Your task to perform on an android device: install app "Clock" Image 0: 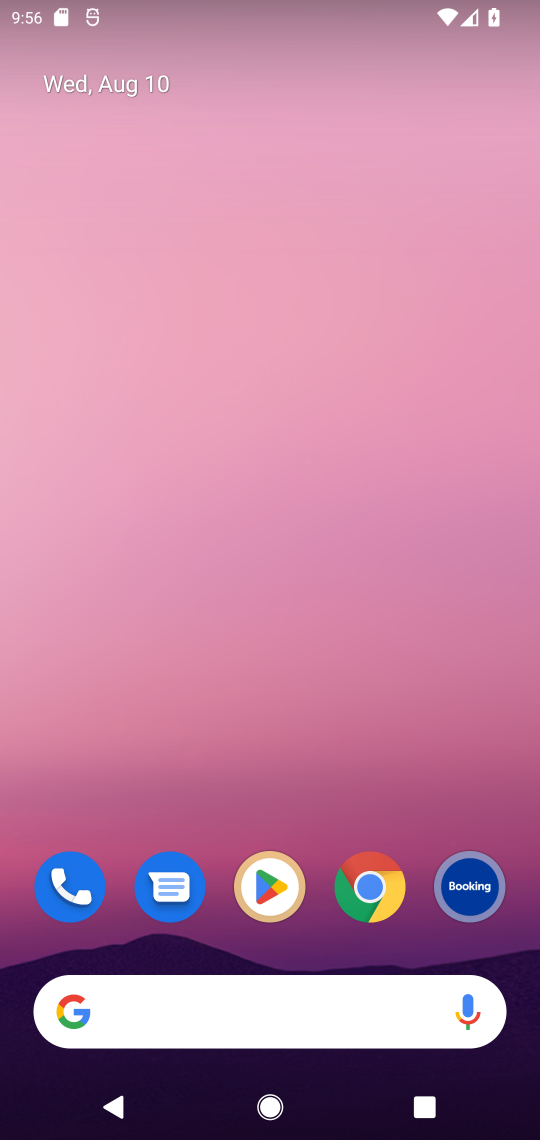
Step 0: click (255, 910)
Your task to perform on an android device: install app "Clock" Image 1: 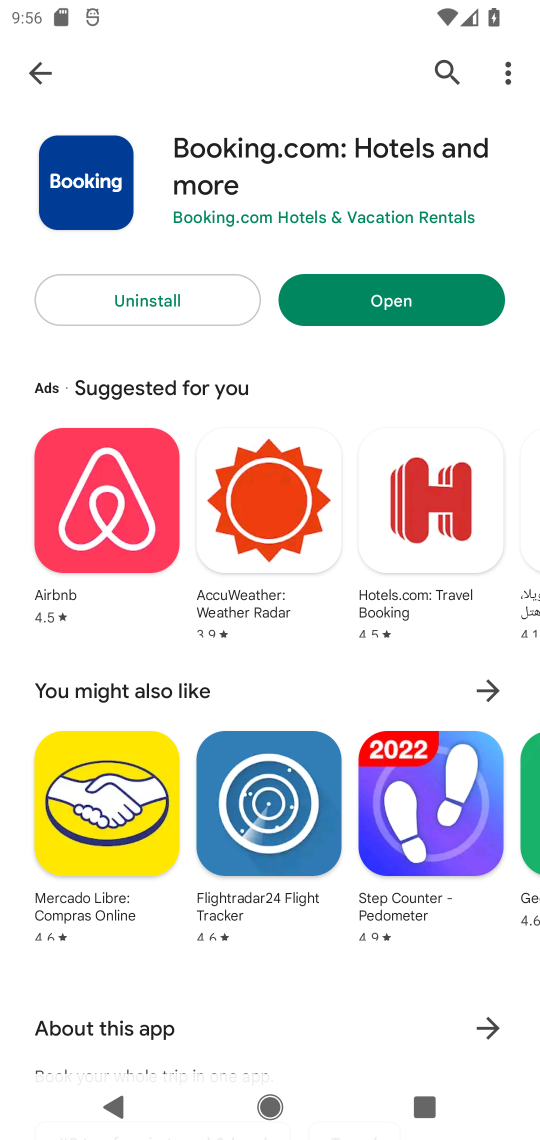
Step 1: click (432, 84)
Your task to perform on an android device: install app "Clock" Image 2: 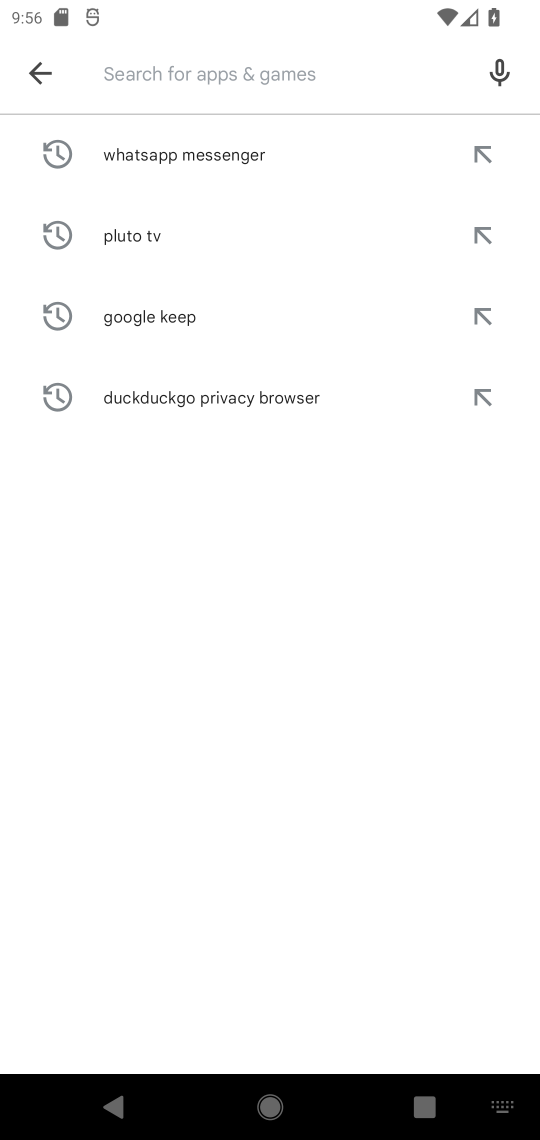
Step 2: type "clock"
Your task to perform on an android device: install app "Clock" Image 3: 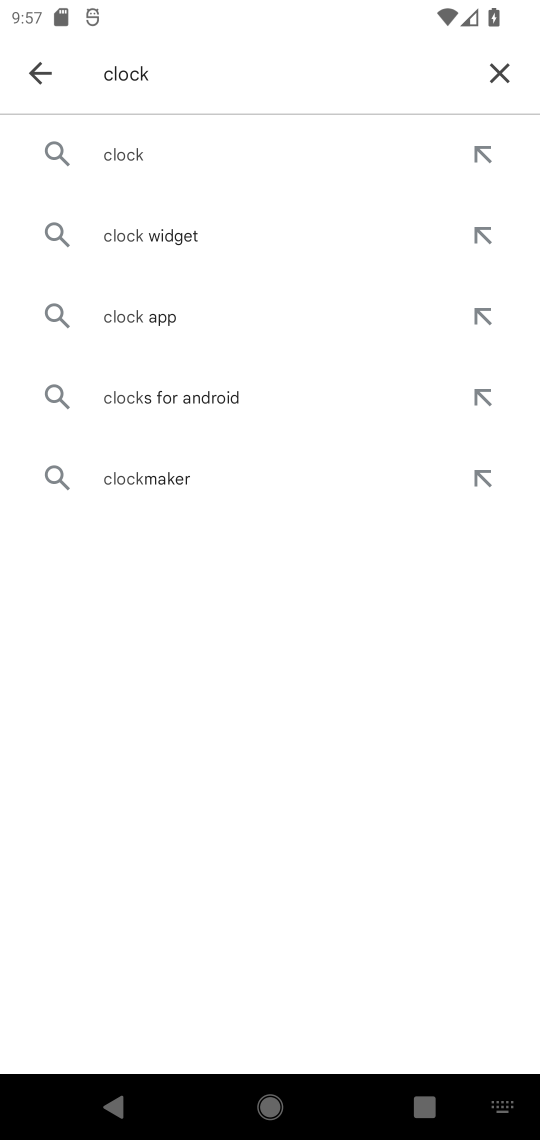
Step 3: click (131, 159)
Your task to perform on an android device: install app "Clock" Image 4: 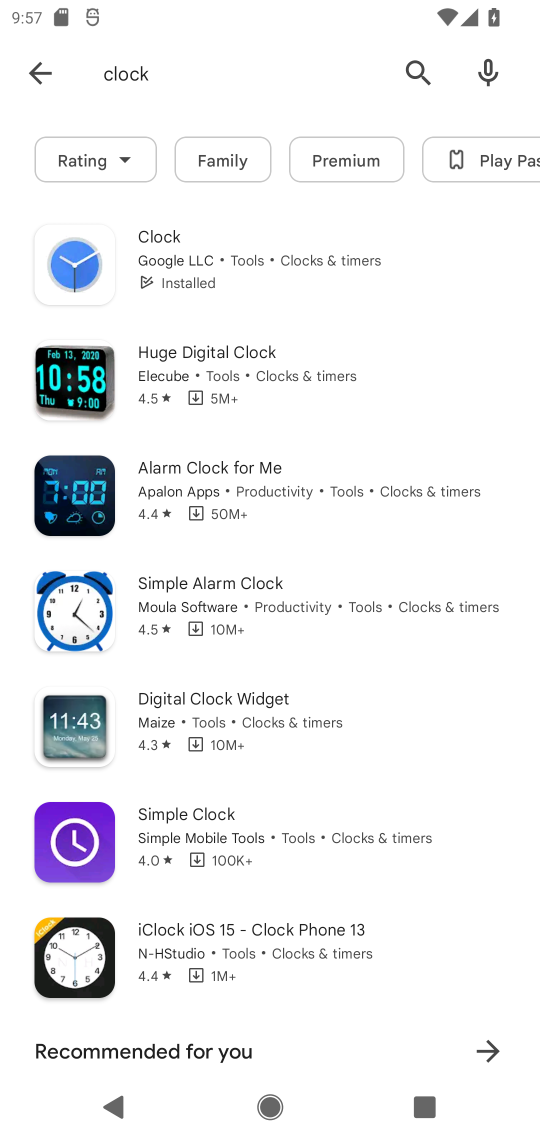
Step 4: click (266, 206)
Your task to perform on an android device: install app "Clock" Image 5: 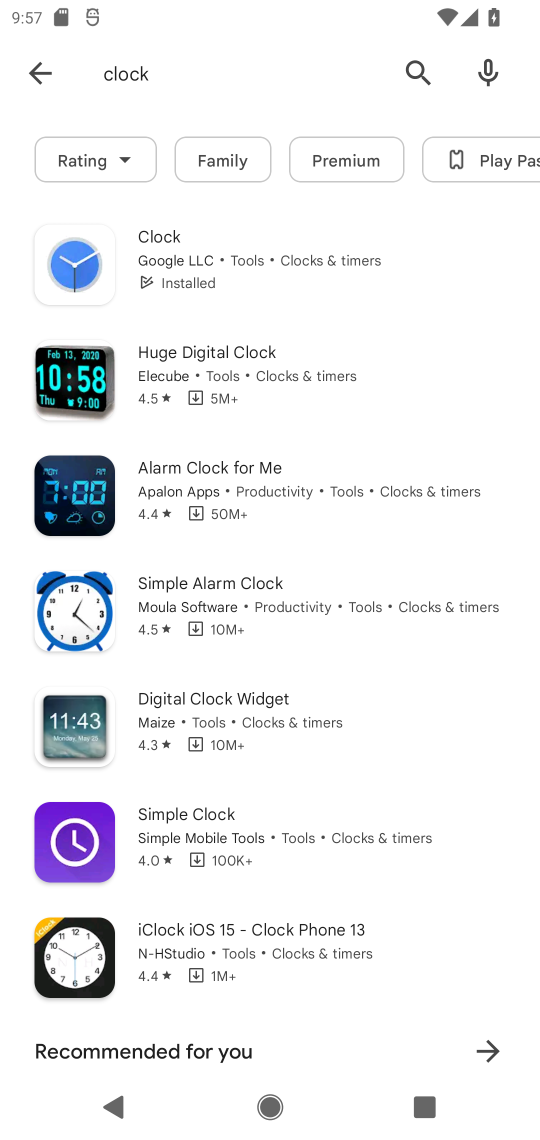
Step 5: click (229, 238)
Your task to perform on an android device: install app "Clock" Image 6: 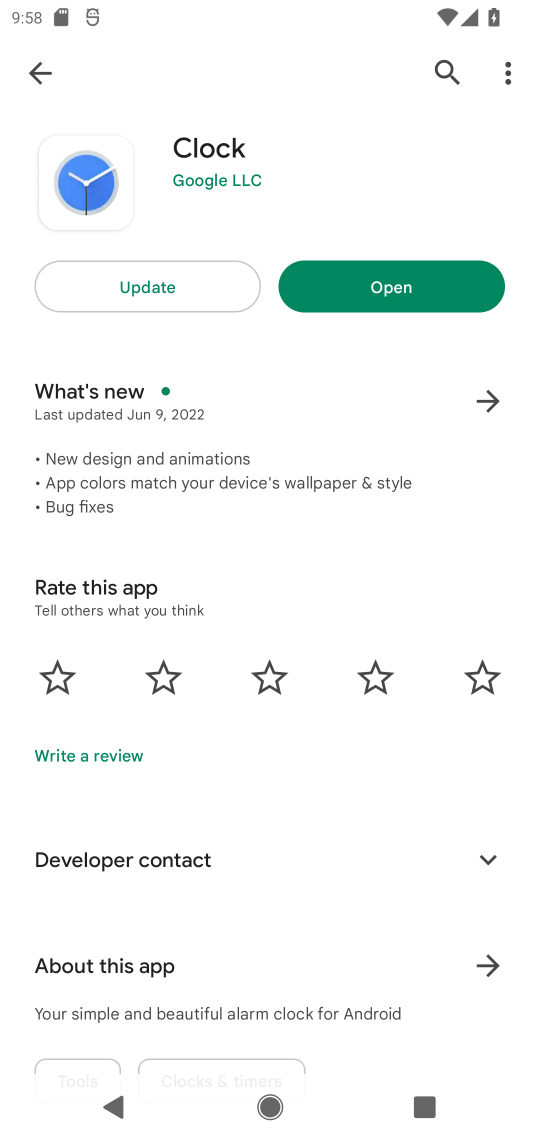
Step 6: task complete